Your task to perform on an android device: open app "Flipkart Online Shopping App" Image 0: 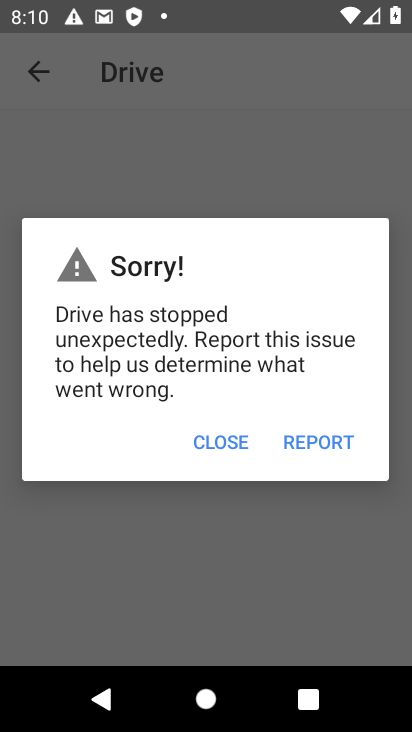
Step 0: press home button
Your task to perform on an android device: open app "Flipkart Online Shopping App" Image 1: 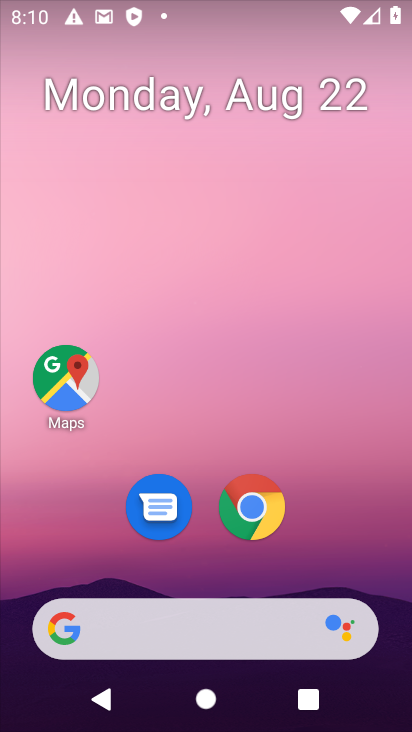
Step 1: drag from (195, 447) to (161, 10)
Your task to perform on an android device: open app "Flipkart Online Shopping App" Image 2: 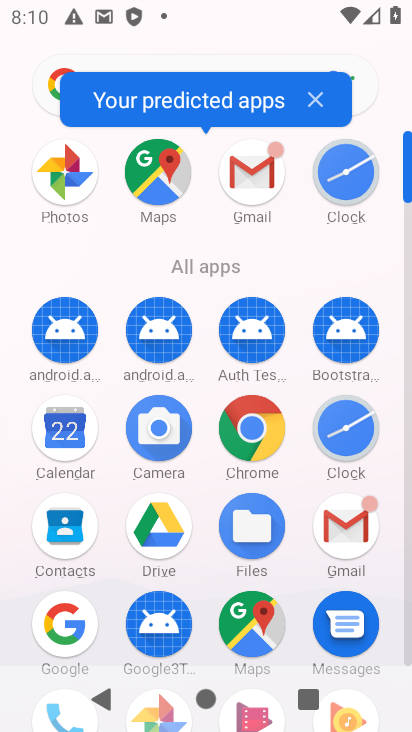
Step 2: drag from (202, 543) to (207, 317)
Your task to perform on an android device: open app "Flipkart Online Shopping App" Image 3: 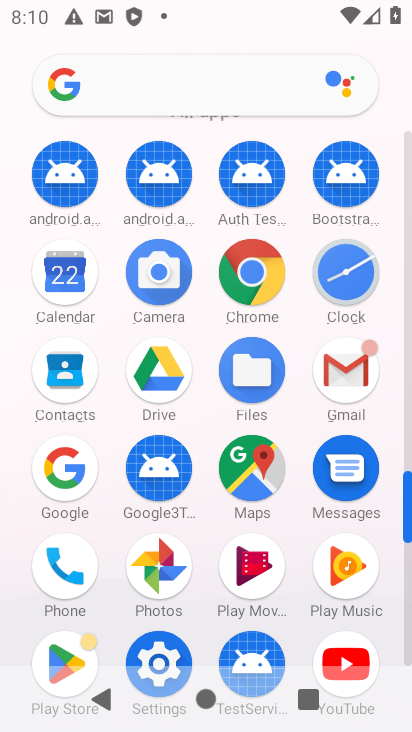
Step 3: click (60, 650)
Your task to perform on an android device: open app "Flipkart Online Shopping App" Image 4: 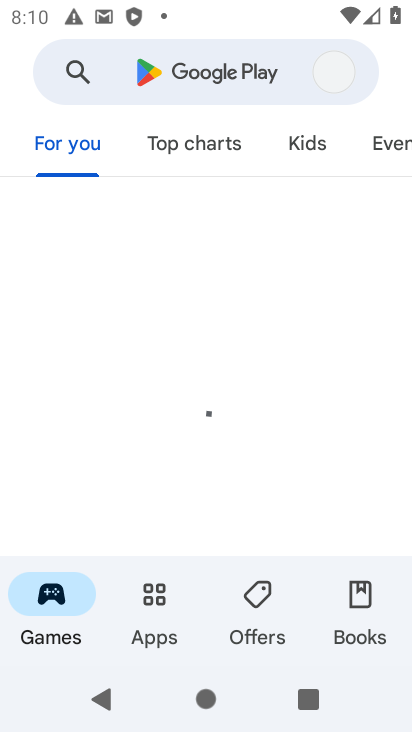
Step 4: click (191, 64)
Your task to perform on an android device: open app "Flipkart Online Shopping App" Image 5: 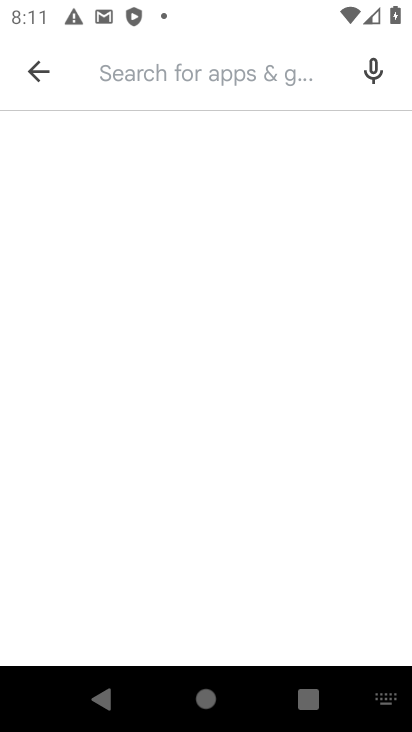
Step 5: type "flipkart"
Your task to perform on an android device: open app "Flipkart Online Shopping App" Image 6: 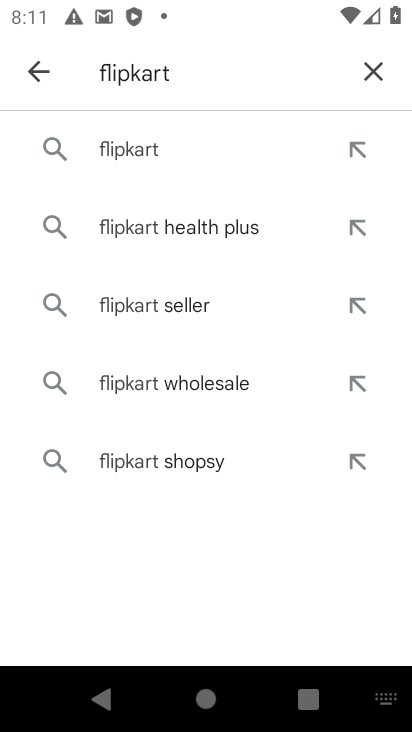
Step 6: click (136, 154)
Your task to perform on an android device: open app "Flipkart Online Shopping App" Image 7: 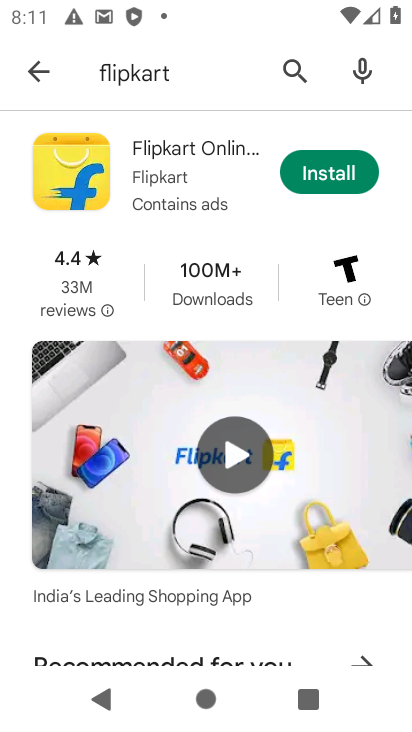
Step 7: click (337, 179)
Your task to perform on an android device: open app "Flipkart Online Shopping App" Image 8: 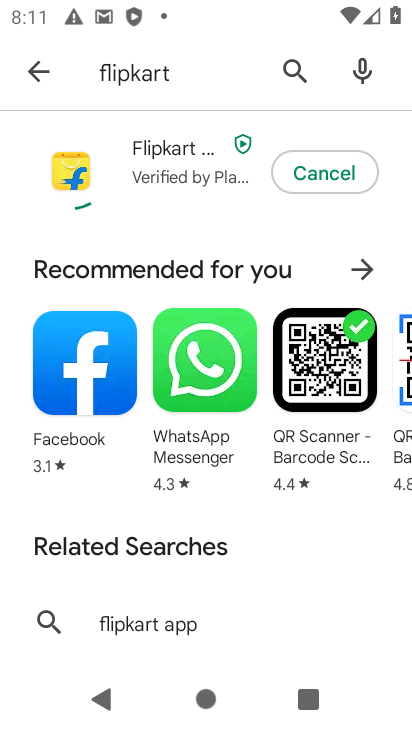
Step 8: click (332, 176)
Your task to perform on an android device: open app "Flipkart Online Shopping App" Image 9: 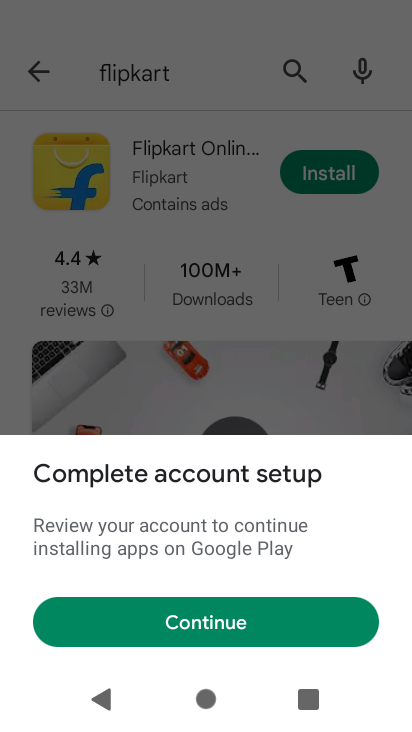
Step 9: task complete